Your task to perform on an android device: Go to Maps Image 0: 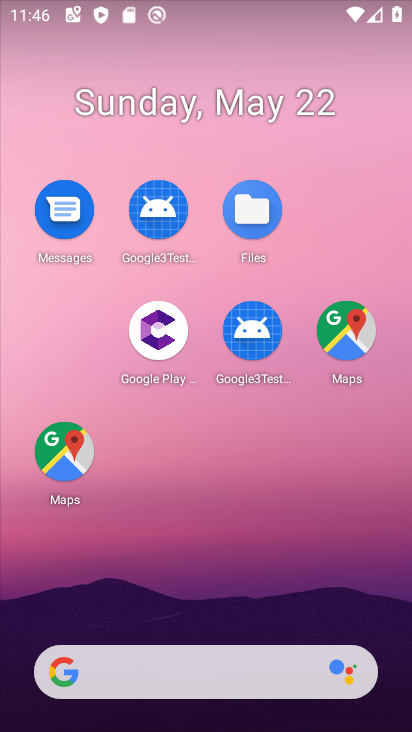
Step 0: click (79, 488)
Your task to perform on an android device: Go to Maps Image 1: 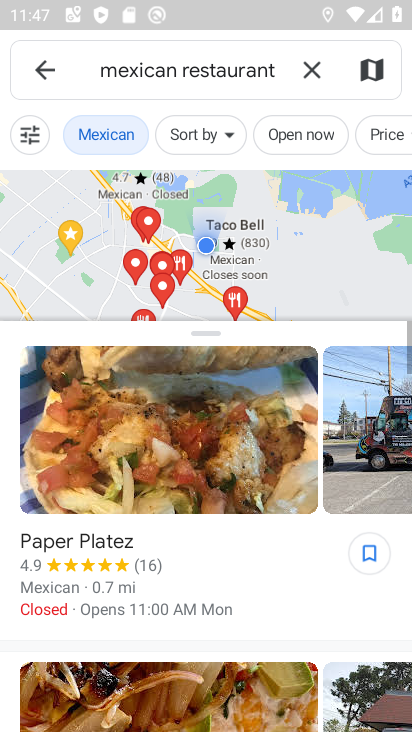
Step 1: task complete